Your task to perform on an android device: Open the map Image 0: 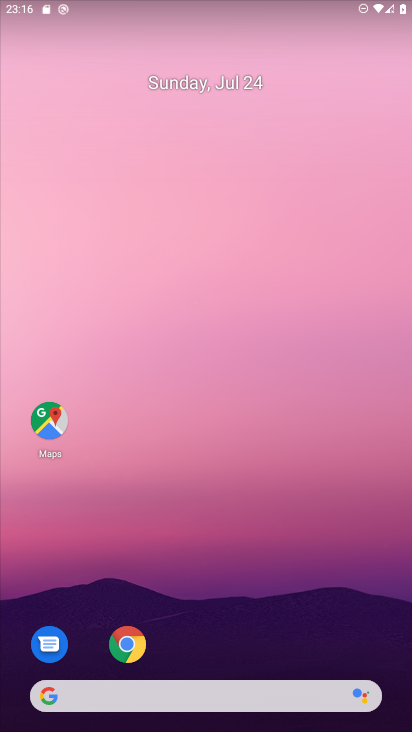
Step 0: click (48, 417)
Your task to perform on an android device: Open the map Image 1: 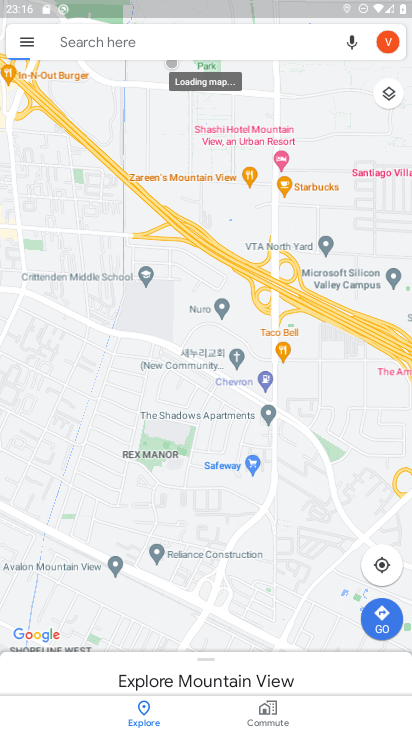
Step 1: task complete